Your task to perform on an android device: delete a single message in the gmail app Image 0: 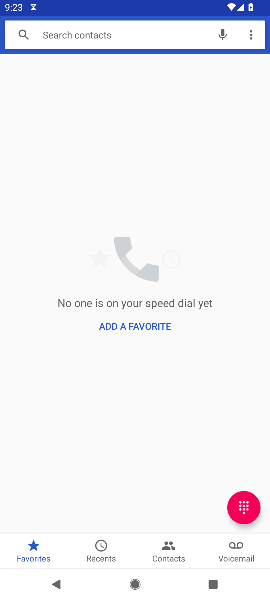
Step 0: press home button
Your task to perform on an android device: delete a single message in the gmail app Image 1: 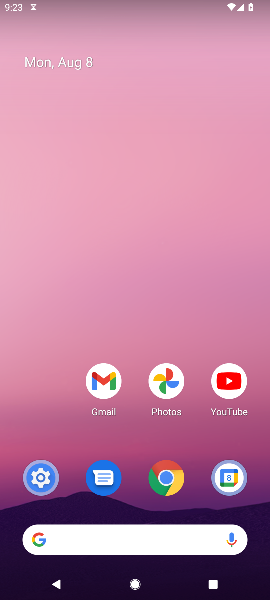
Step 1: drag from (75, 543) to (202, 96)
Your task to perform on an android device: delete a single message in the gmail app Image 2: 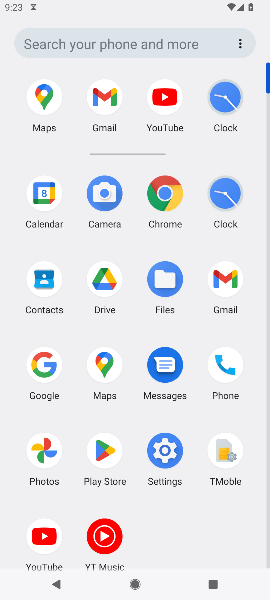
Step 2: click (106, 103)
Your task to perform on an android device: delete a single message in the gmail app Image 3: 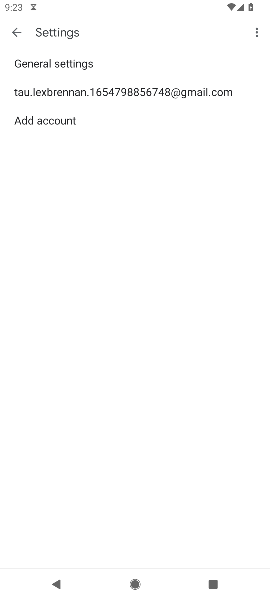
Step 3: click (7, 30)
Your task to perform on an android device: delete a single message in the gmail app Image 4: 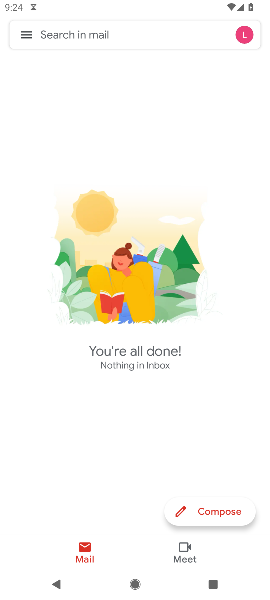
Step 4: task complete